Your task to perform on an android device: What's the weather? Image 0: 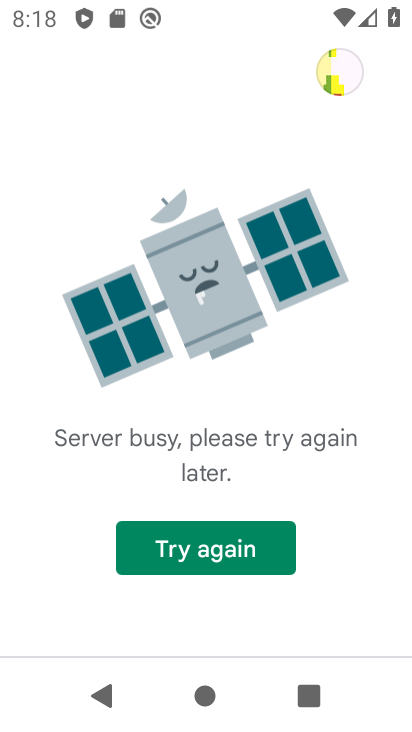
Step 0: press home button
Your task to perform on an android device: What's the weather? Image 1: 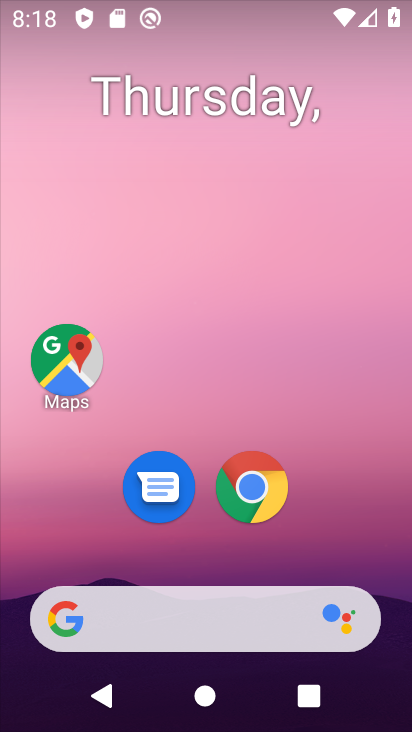
Step 1: drag from (274, 639) to (248, 158)
Your task to perform on an android device: What's the weather? Image 2: 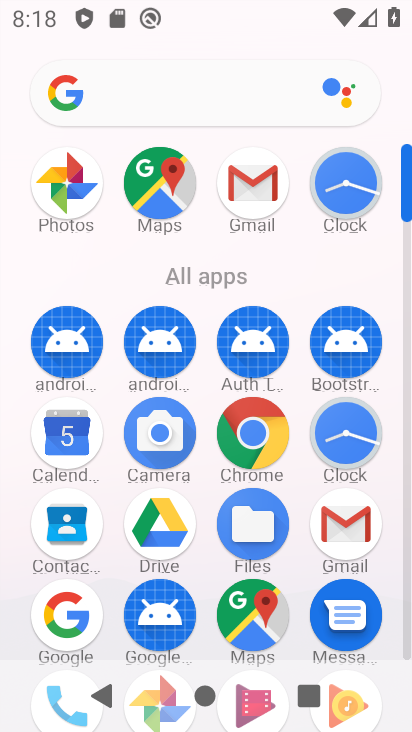
Step 2: click (190, 111)
Your task to perform on an android device: What's the weather? Image 3: 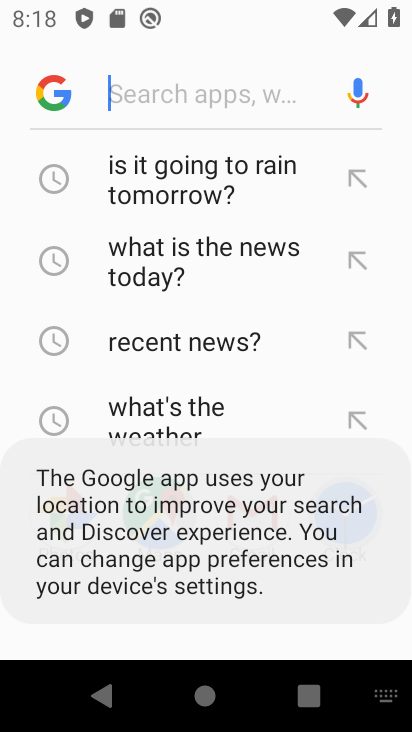
Step 3: click (391, 698)
Your task to perform on an android device: What's the weather? Image 4: 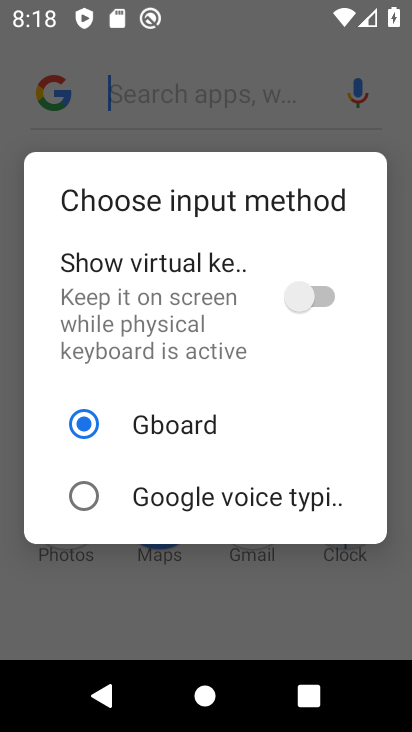
Step 4: click (321, 293)
Your task to perform on an android device: What's the weather? Image 5: 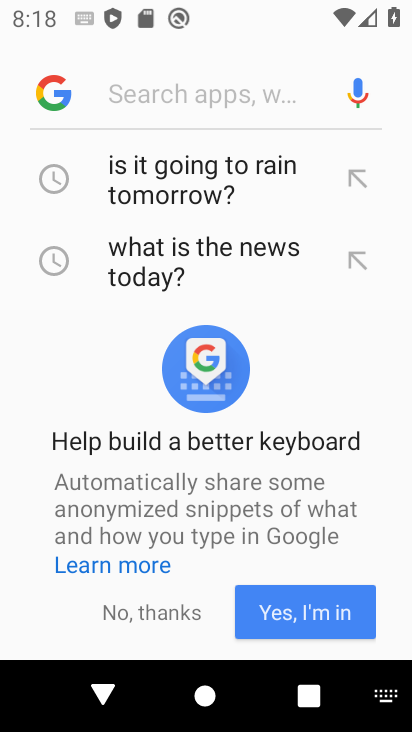
Step 5: click (151, 603)
Your task to perform on an android device: What's the weather? Image 6: 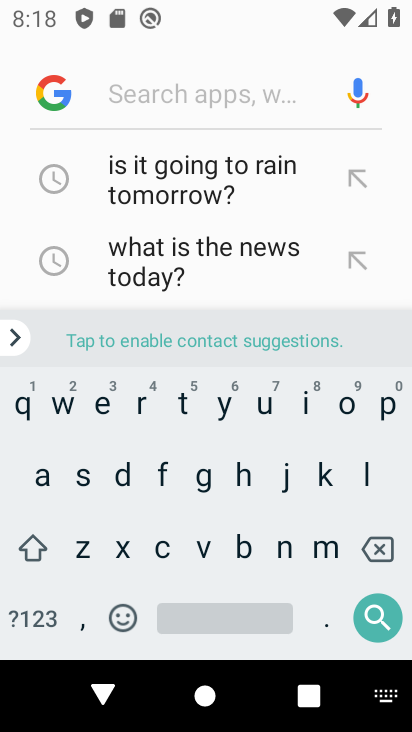
Step 6: click (60, 408)
Your task to perform on an android device: What's the weather? Image 7: 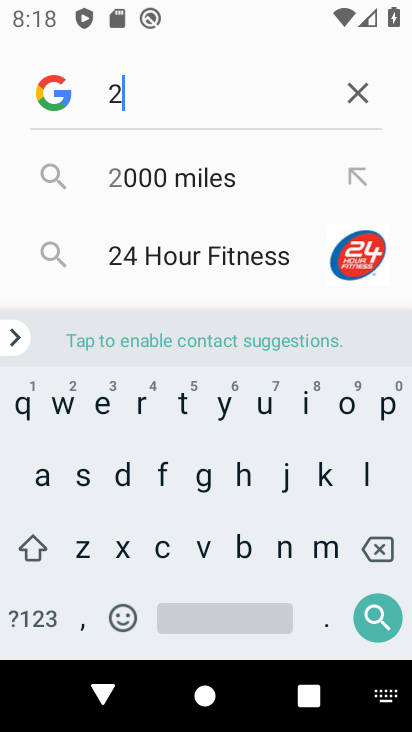
Step 7: click (384, 554)
Your task to perform on an android device: What's the weather? Image 8: 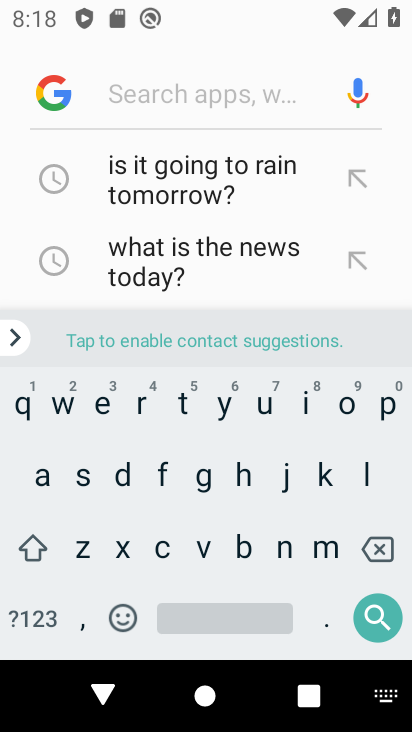
Step 8: click (66, 412)
Your task to perform on an android device: What's the weather? Image 9: 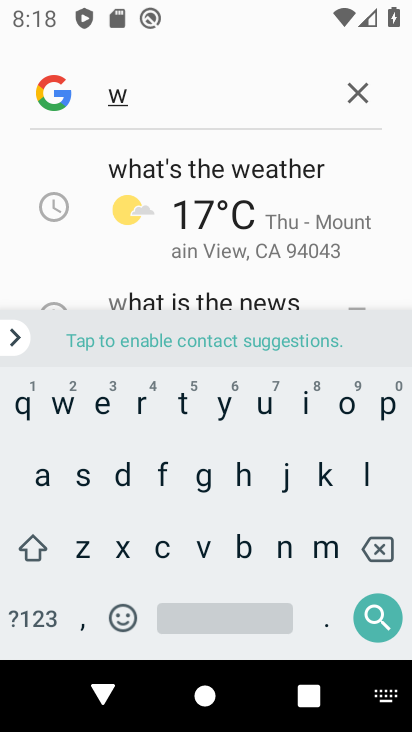
Step 9: click (101, 405)
Your task to perform on an android device: What's the weather? Image 10: 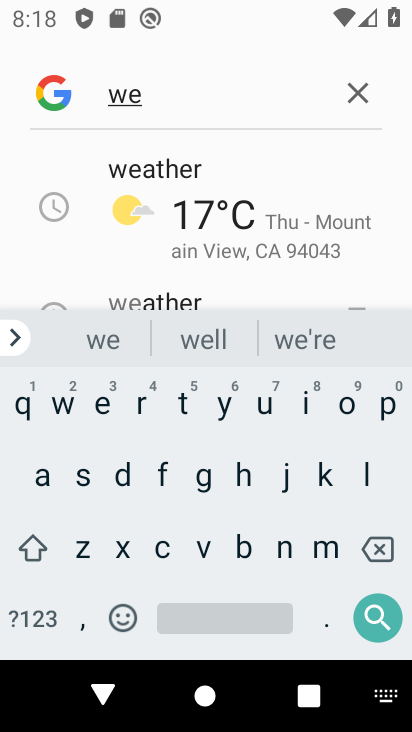
Step 10: click (190, 197)
Your task to perform on an android device: What's the weather? Image 11: 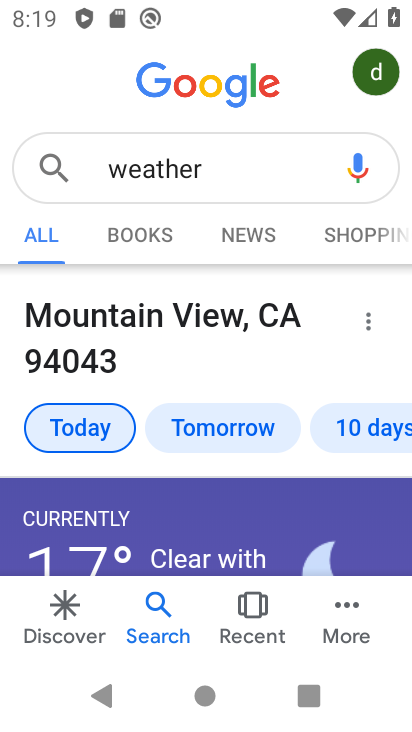
Step 11: task complete